Your task to perform on an android device: Open Chrome and go to the settings page Image 0: 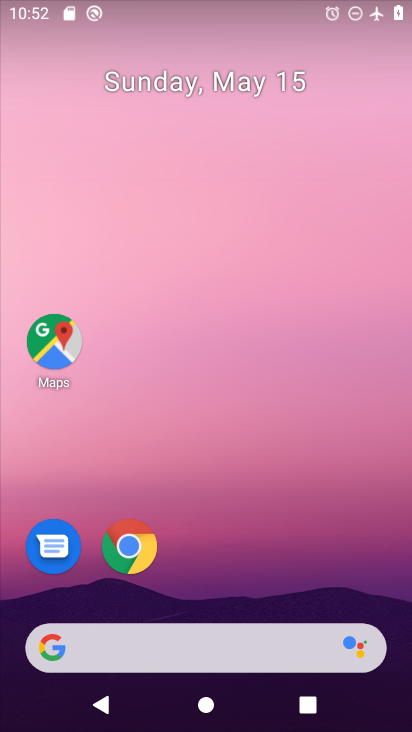
Step 0: click (128, 545)
Your task to perform on an android device: Open Chrome and go to the settings page Image 1: 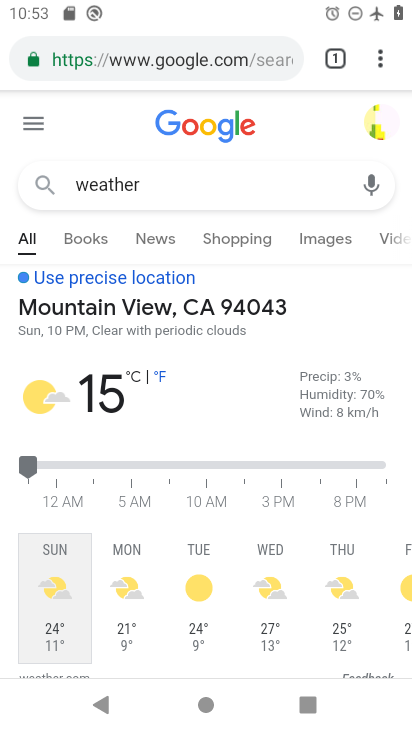
Step 1: task complete